Your task to perform on an android device: Clear the shopping cart on walmart. Image 0: 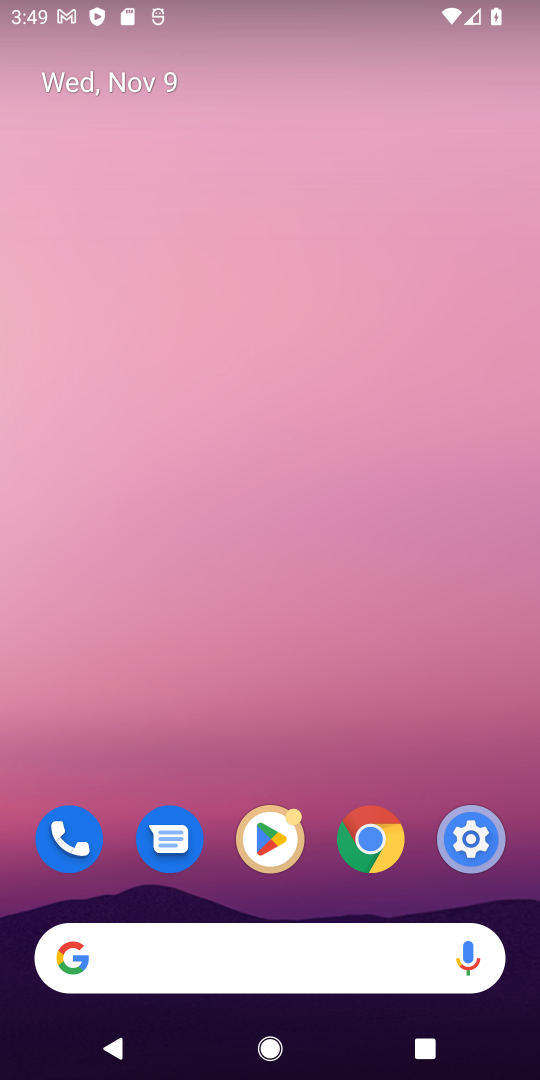
Step 0: click (351, 955)
Your task to perform on an android device: Clear the shopping cart on walmart. Image 1: 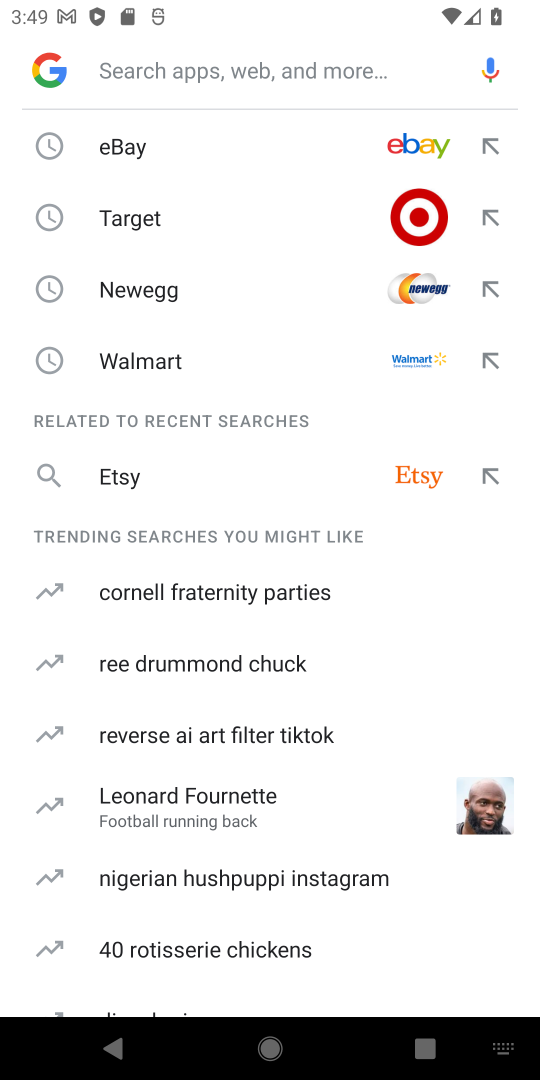
Step 1: click (178, 378)
Your task to perform on an android device: Clear the shopping cart on walmart. Image 2: 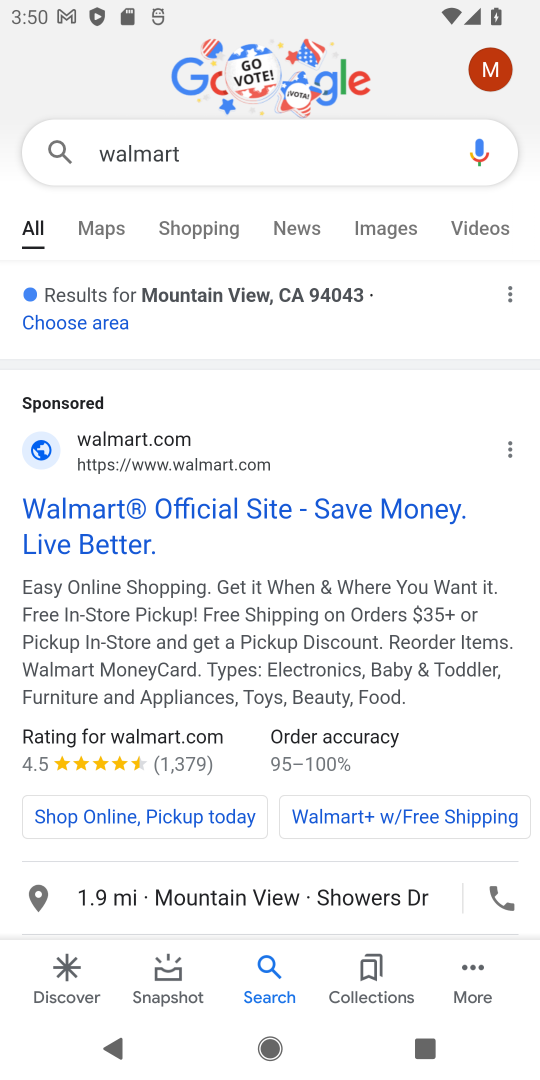
Step 2: click (323, 546)
Your task to perform on an android device: Clear the shopping cart on walmart. Image 3: 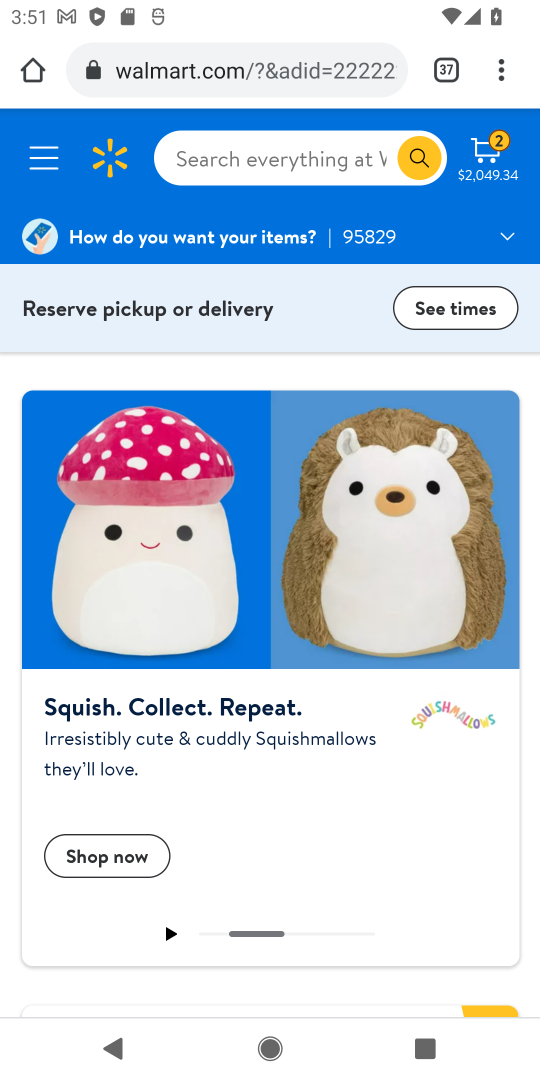
Step 3: click (333, 169)
Your task to perform on an android device: Clear the shopping cart on walmart. Image 4: 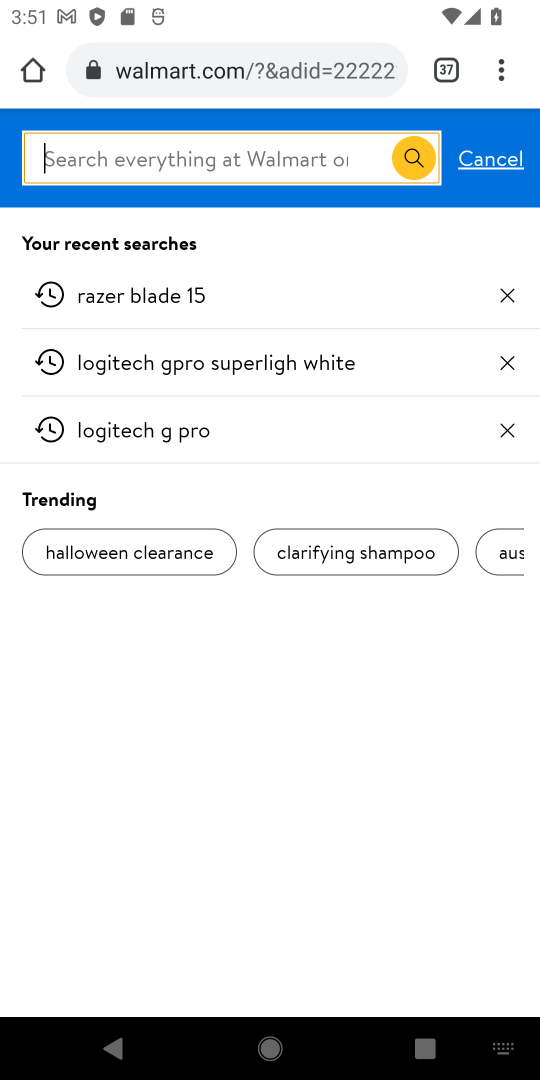
Step 4: click (458, 163)
Your task to perform on an android device: Clear the shopping cart on walmart. Image 5: 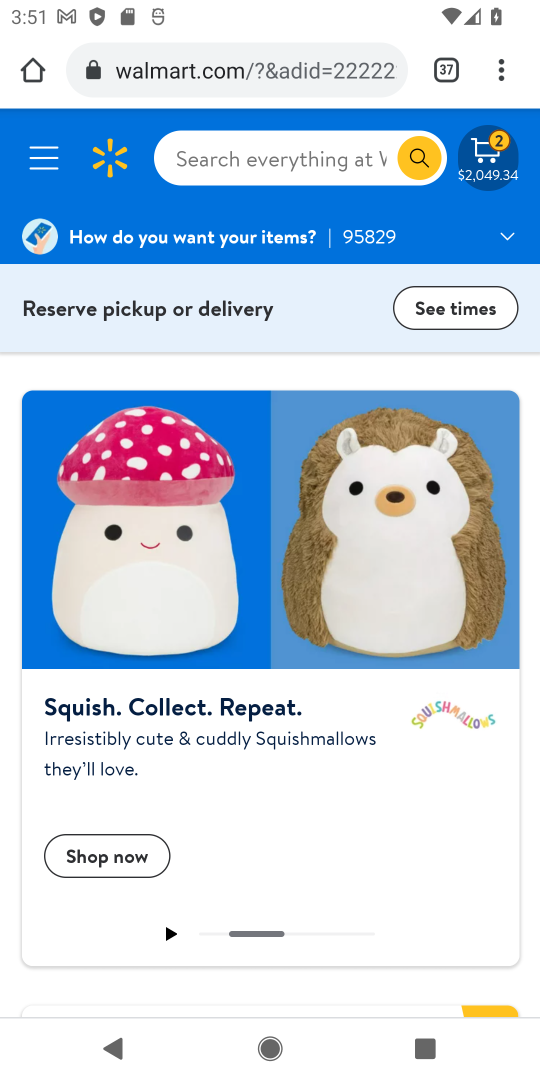
Step 5: click (501, 178)
Your task to perform on an android device: Clear the shopping cart on walmart. Image 6: 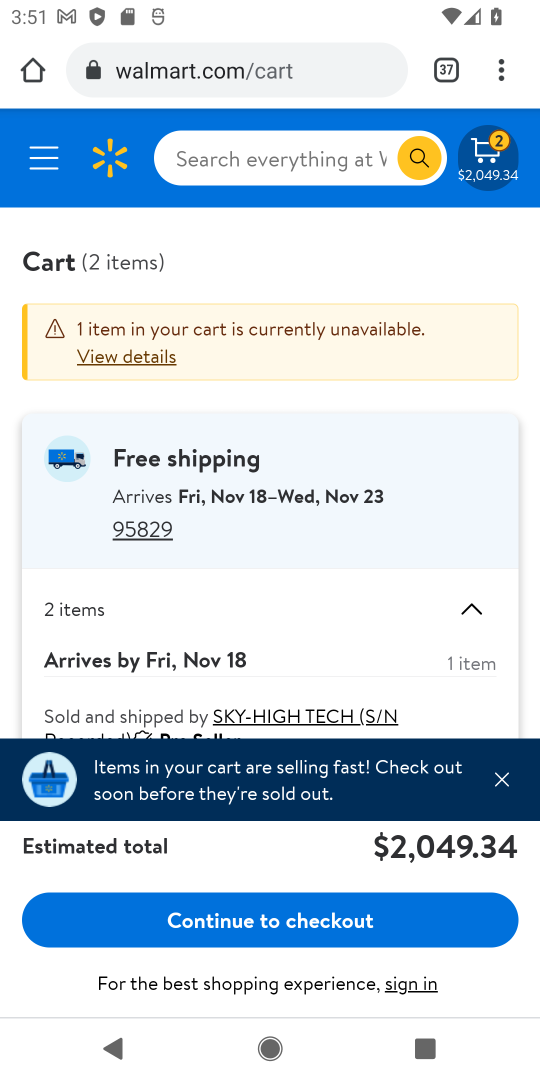
Step 6: click (508, 789)
Your task to perform on an android device: Clear the shopping cart on walmart. Image 7: 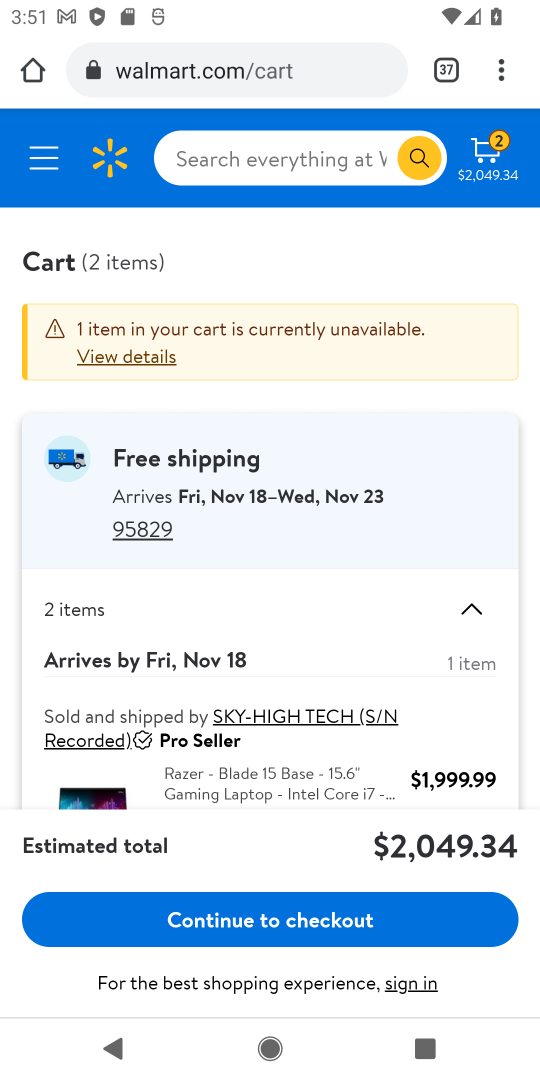
Step 7: drag from (299, 732) to (328, 296)
Your task to perform on an android device: Clear the shopping cart on walmart. Image 8: 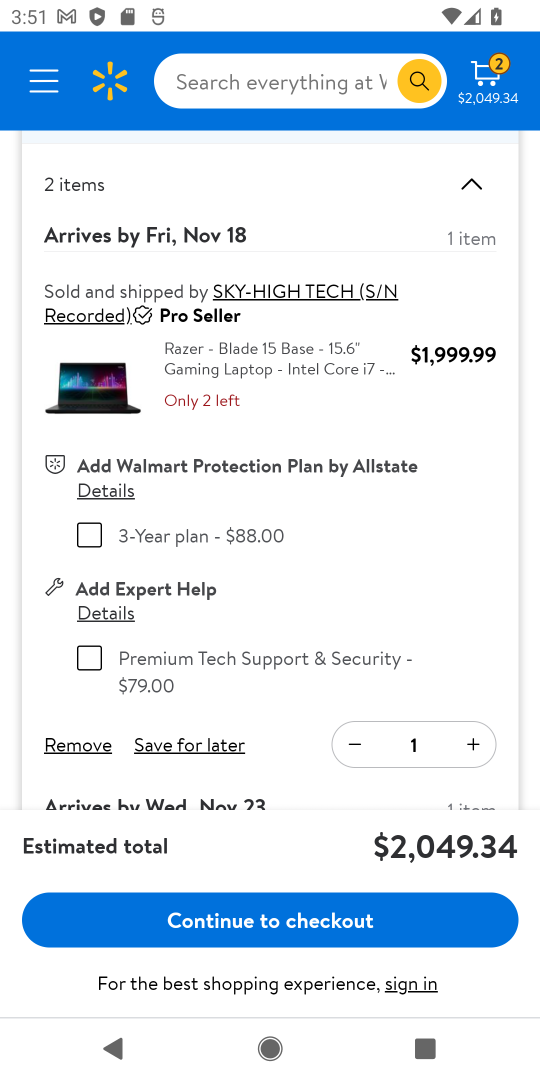
Step 8: click (345, 747)
Your task to perform on an android device: Clear the shopping cart on walmart. Image 9: 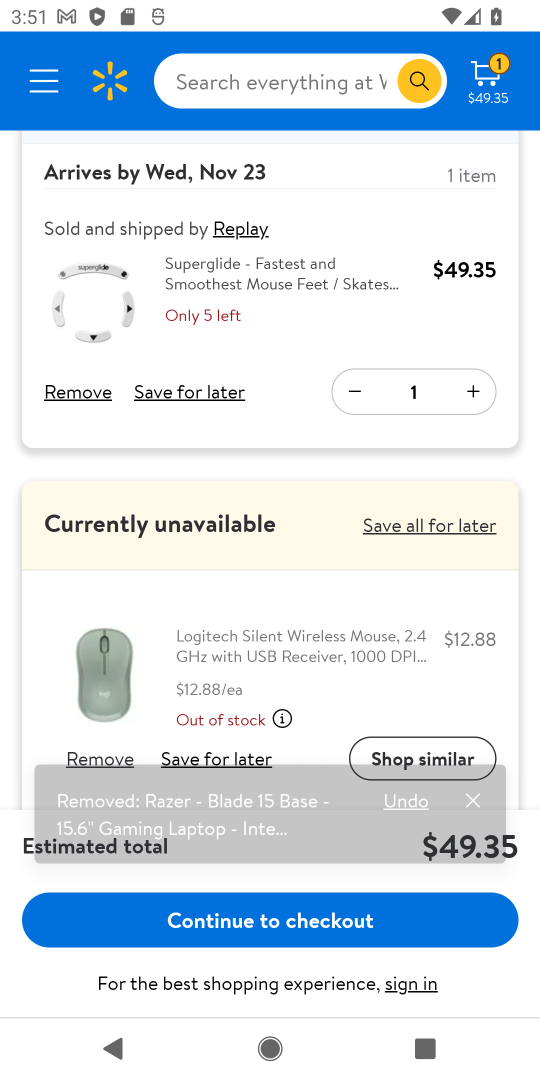
Step 9: click (81, 753)
Your task to perform on an android device: Clear the shopping cart on walmart. Image 10: 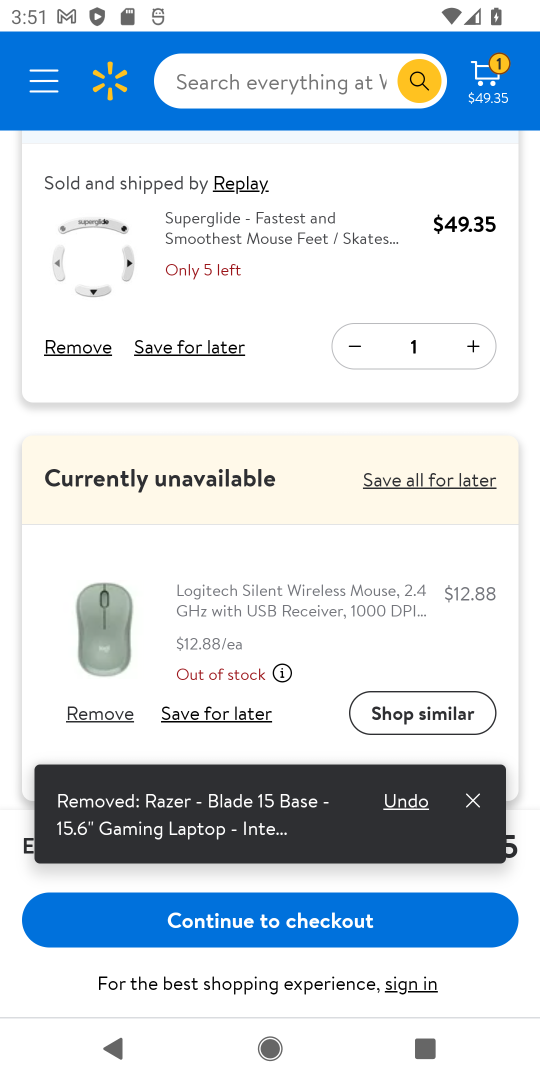
Step 10: click (96, 715)
Your task to perform on an android device: Clear the shopping cart on walmart. Image 11: 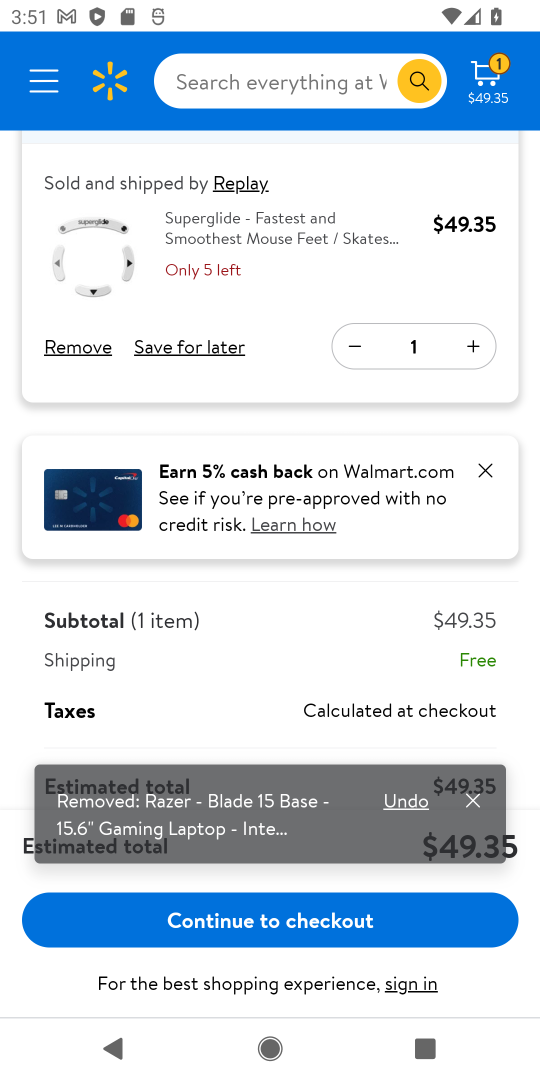
Step 11: task complete